Your task to perform on an android device: Open the Play Movies app and select the watchlist tab. Image 0: 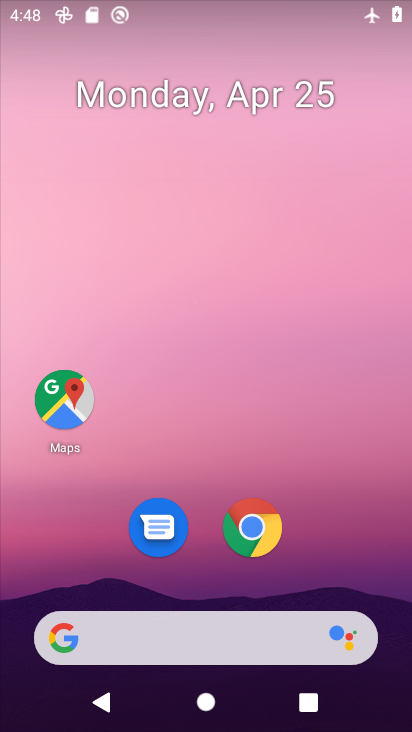
Step 0: drag from (393, 622) to (346, 179)
Your task to perform on an android device: Open the Play Movies app and select the watchlist tab. Image 1: 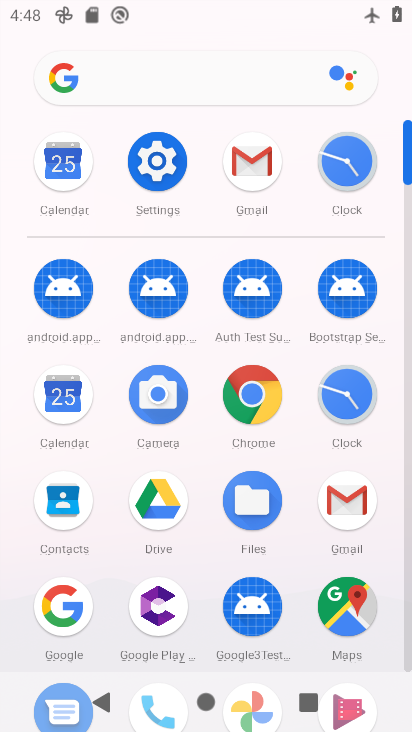
Step 1: click (408, 650)
Your task to perform on an android device: Open the Play Movies app and select the watchlist tab. Image 2: 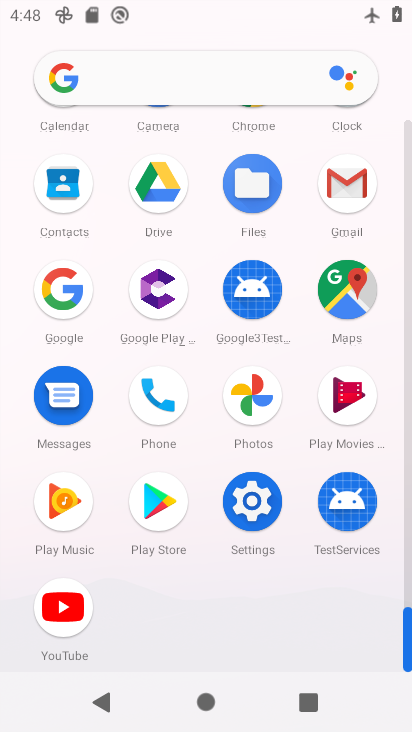
Step 2: click (343, 396)
Your task to perform on an android device: Open the Play Movies app and select the watchlist tab. Image 3: 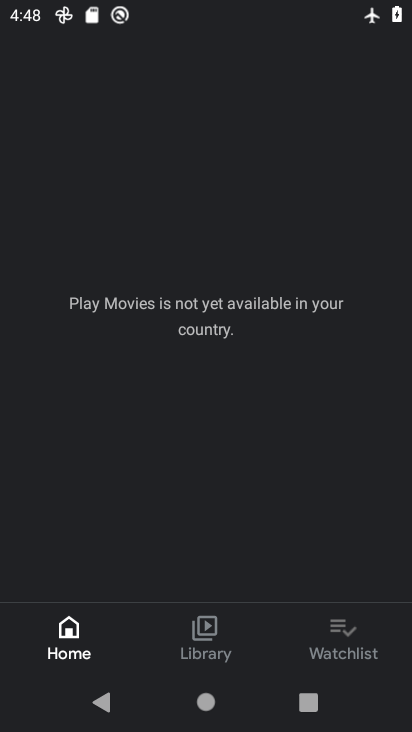
Step 3: click (354, 641)
Your task to perform on an android device: Open the Play Movies app and select the watchlist tab. Image 4: 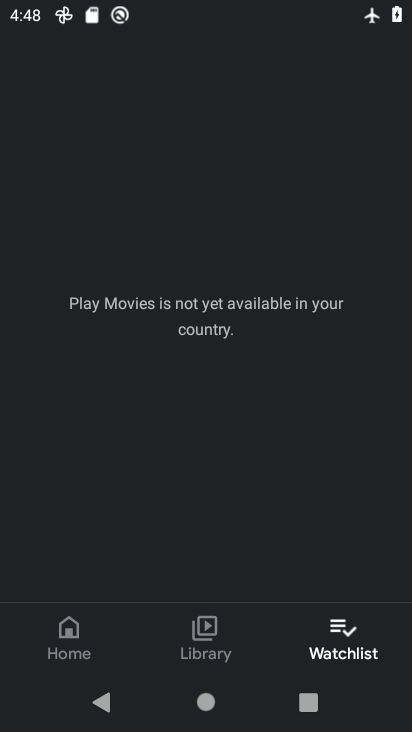
Step 4: task complete